Your task to perform on an android device: Open wifi settings Image 0: 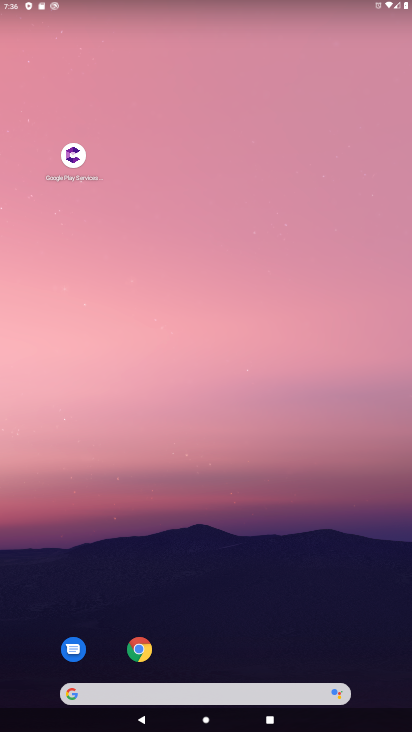
Step 0: drag from (152, 531) to (120, 151)
Your task to perform on an android device: Open wifi settings Image 1: 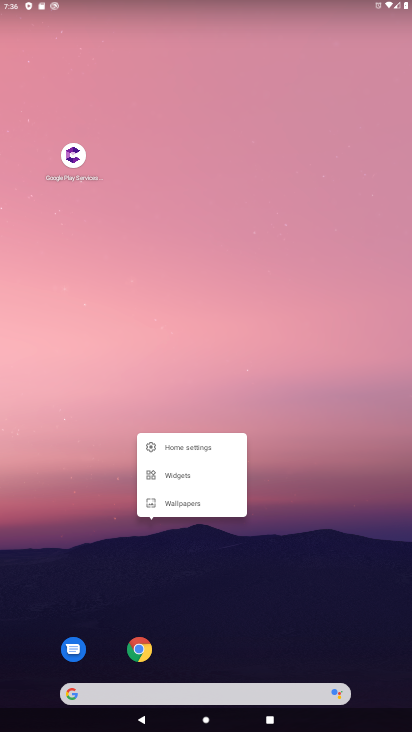
Step 1: drag from (204, 671) to (240, 69)
Your task to perform on an android device: Open wifi settings Image 2: 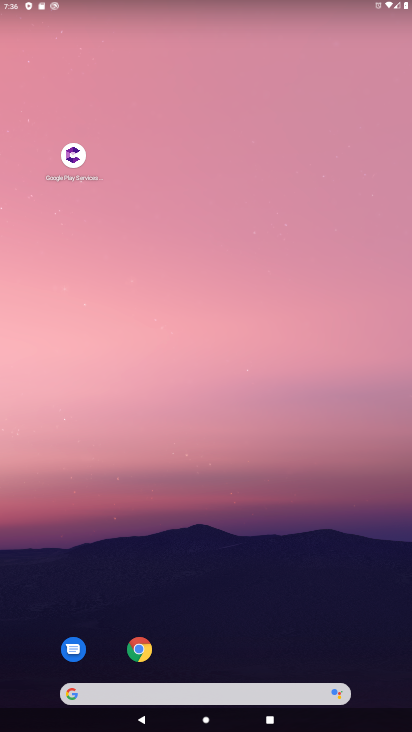
Step 2: drag from (234, 679) to (237, 46)
Your task to perform on an android device: Open wifi settings Image 3: 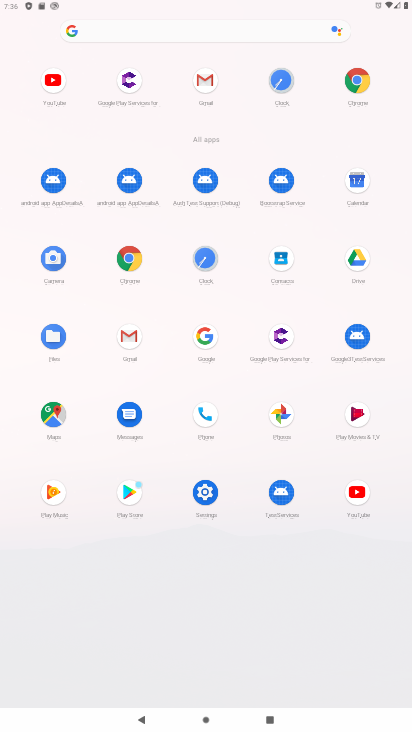
Step 3: click (211, 503)
Your task to perform on an android device: Open wifi settings Image 4: 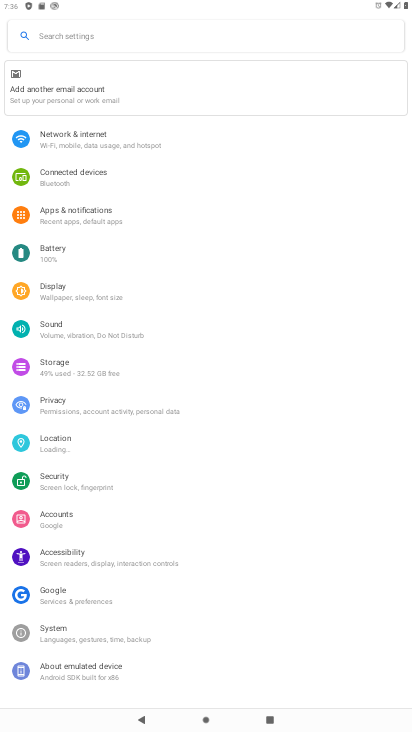
Step 4: click (75, 153)
Your task to perform on an android device: Open wifi settings Image 5: 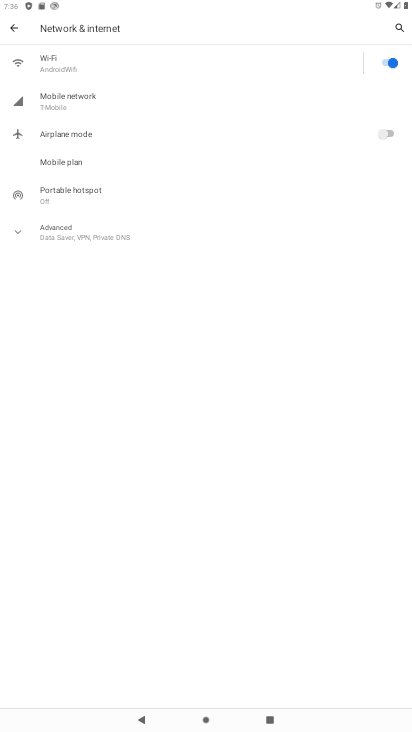
Step 5: click (103, 71)
Your task to perform on an android device: Open wifi settings Image 6: 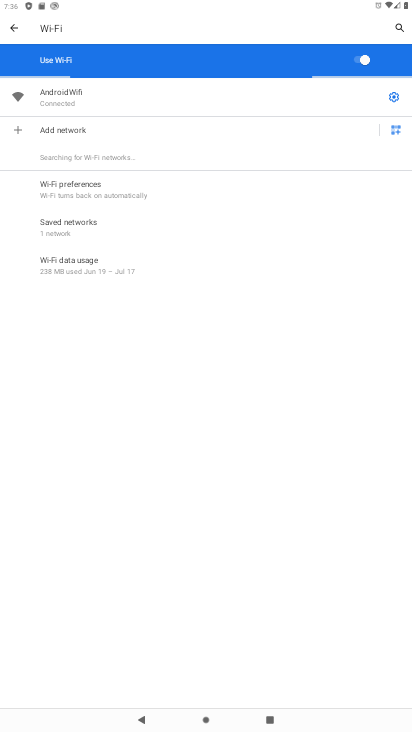
Step 6: task complete